Your task to perform on an android device: check out phone information Image 0: 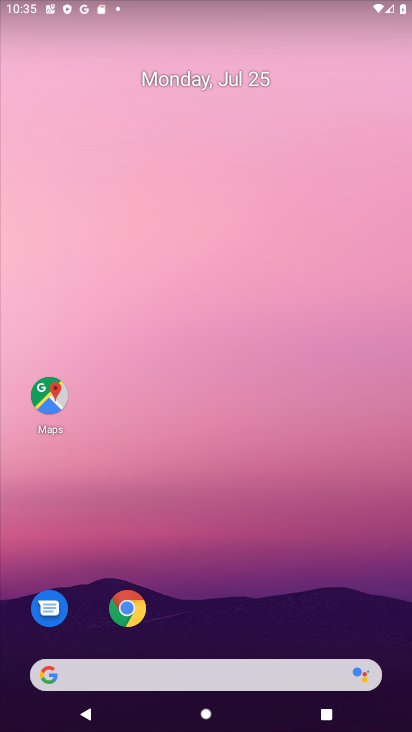
Step 0: drag from (198, 654) to (281, 4)
Your task to perform on an android device: check out phone information Image 1: 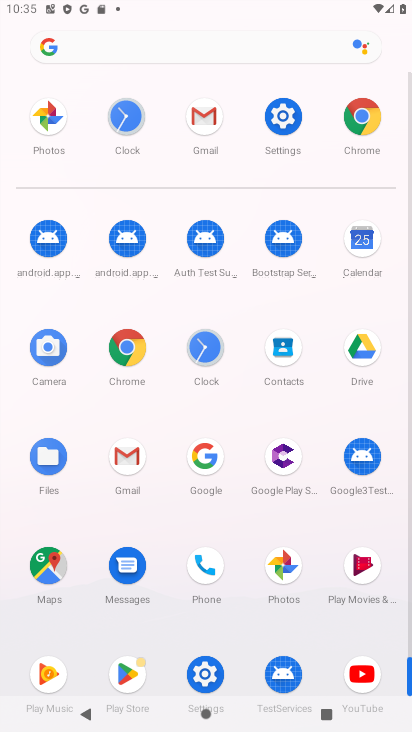
Step 1: click (297, 126)
Your task to perform on an android device: check out phone information Image 2: 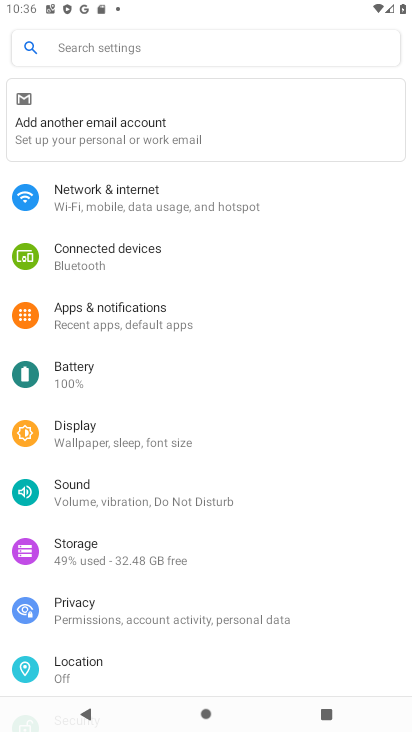
Step 2: drag from (164, 457) to (224, 170)
Your task to perform on an android device: check out phone information Image 3: 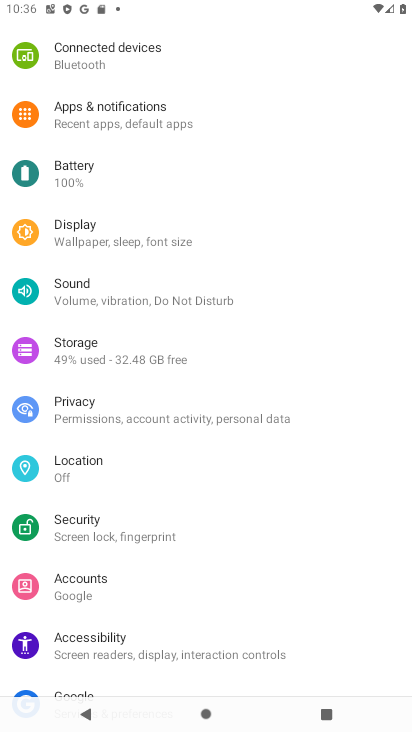
Step 3: drag from (170, 562) to (388, 7)
Your task to perform on an android device: check out phone information Image 4: 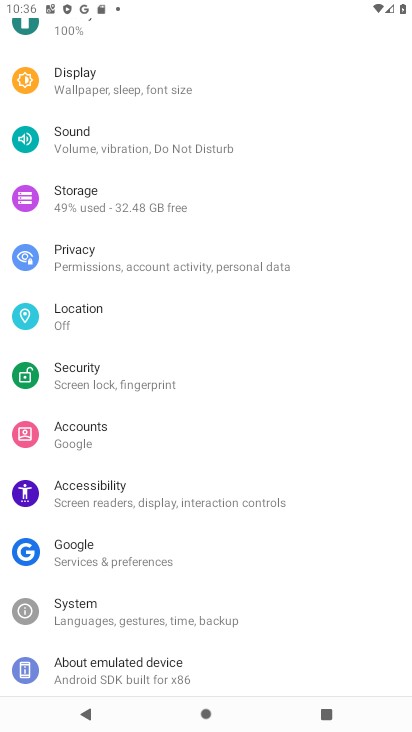
Step 4: drag from (232, 608) to (301, 153)
Your task to perform on an android device: check out phone information Image 5: 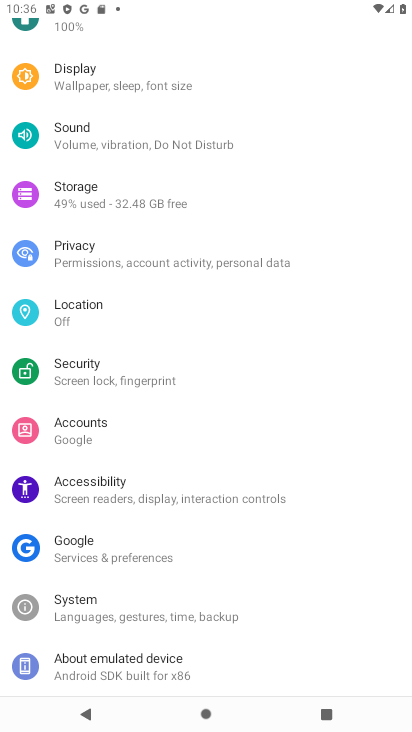
Step 5: click (185, 677)
Your task to perform on an android device: check out phone information Image 6: 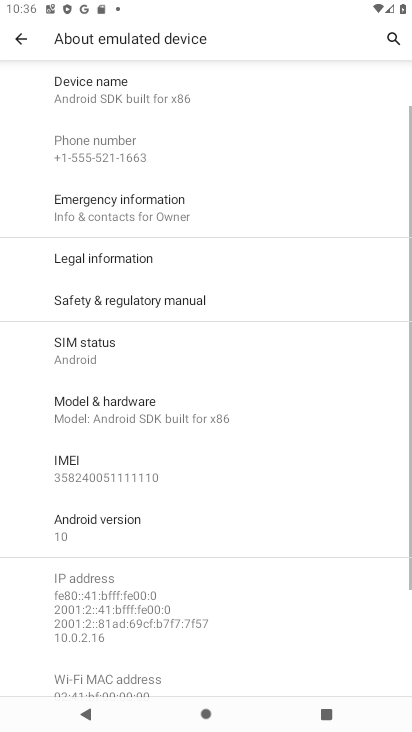
Step 6: task complete